Your task to perform on an android device: Go to battery settings Image 0: 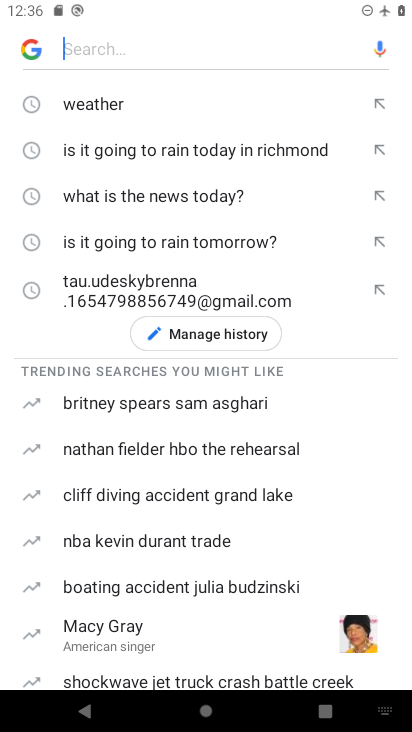
Step 0: press home button
Your task to perform on an android device: Go to battery settings Image 1: 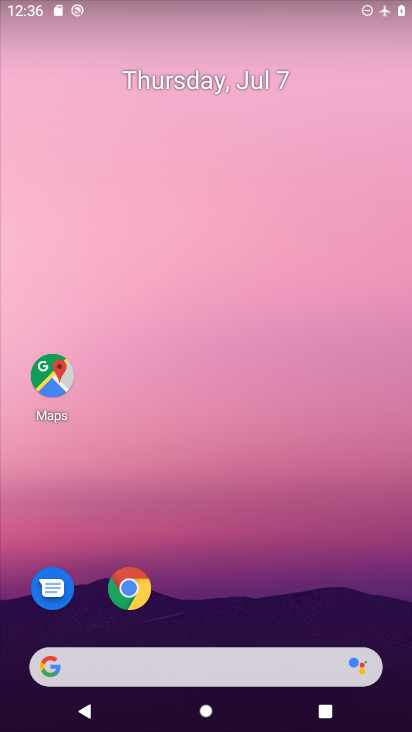
Step 1: drag from (341, 580) to (358, 101)
Your task to perform on an android device: Go to battery settings Image 2: 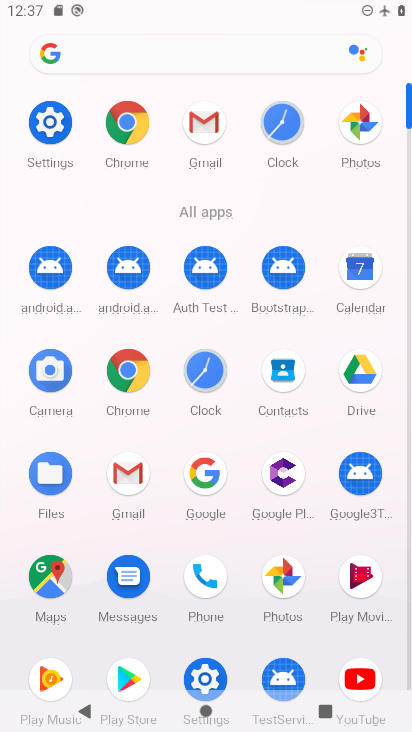
Step 2: click (58, 115)
Your task to perform on an android device: Go to battery settings Image 3: 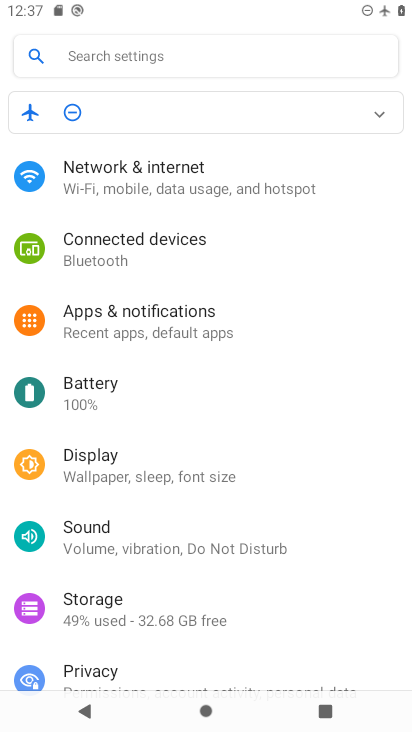
Step 3: click (128, 398)
Your task to perform on an android device: Go to battery settings Image 4: 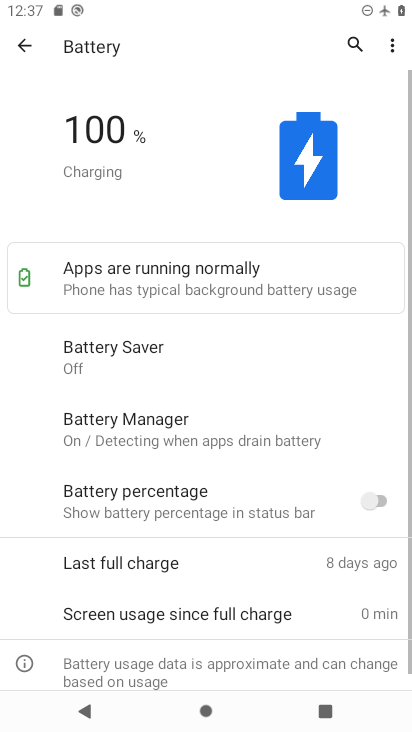
Step 4: task complete